Your task to perform on an android device: Open the Play Movies app and select the watchlist tab. Image 0: 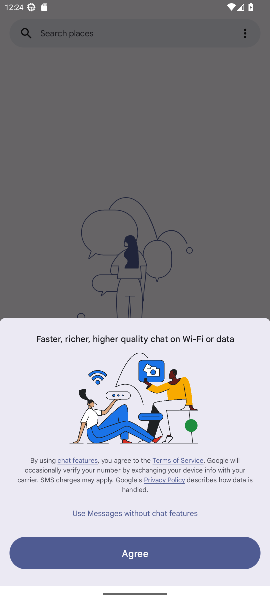
Step 0: press home button
Your task to perform on an android device: Open the Play Movies app and select the watchlist tab. Image 1: 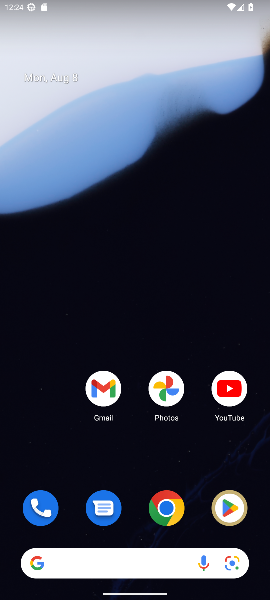
Step 1: task complete